Your task to perform on an android device: See recent photos Image 0: 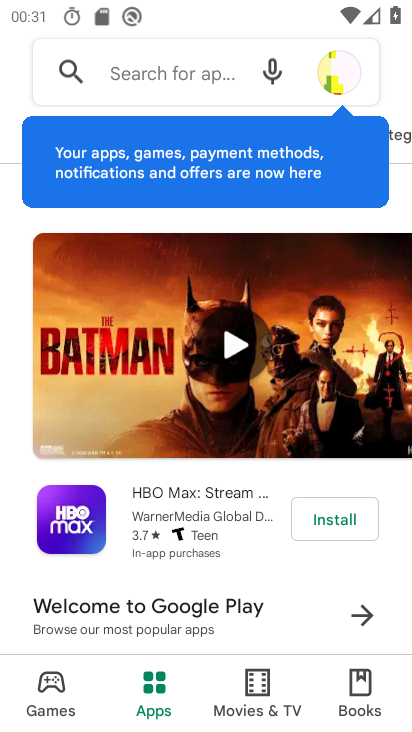
Step 0: press home button
Your task to perform on an android device: See recent photos Image 1: 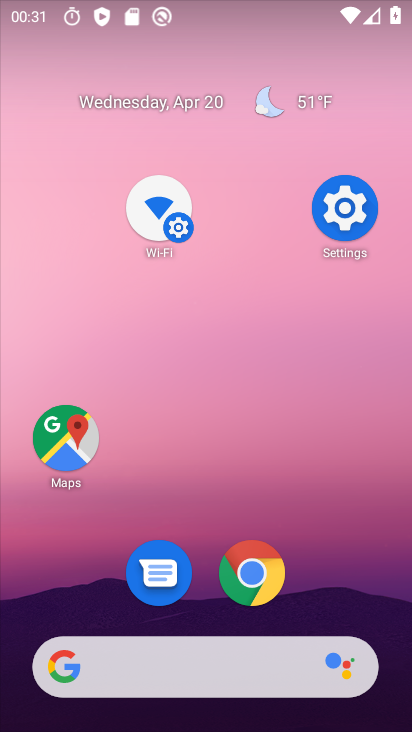
Step 1: drag from (312, 583) to (273, 131)
Your task to perform on an android device: See recent photos Image 2: 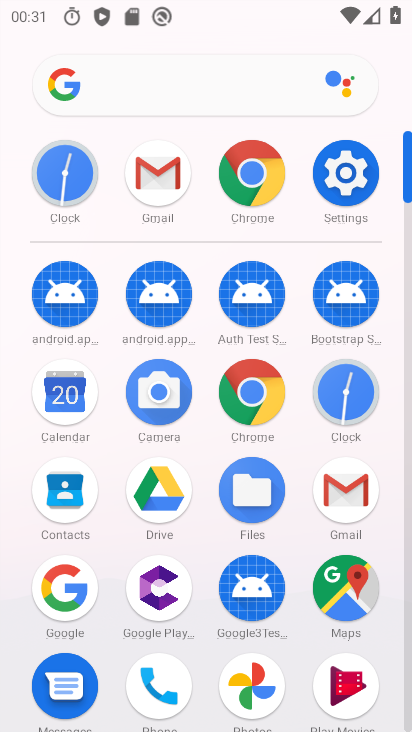
Step 2: click (250, 681)
Your task to perform on an android device: See recent photos Image 3: 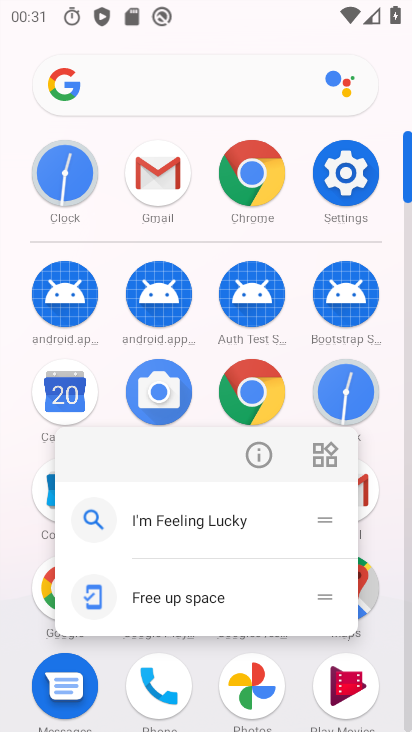
Step 3: click (256, 691)
Your task to perform on an android device: See recent photos Image 4: 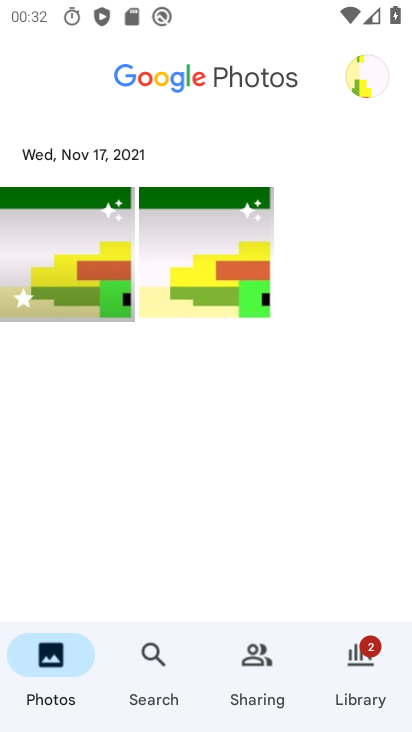
Step 4: task complete